Your task to perform on an android device: Show me recent news Image 0: 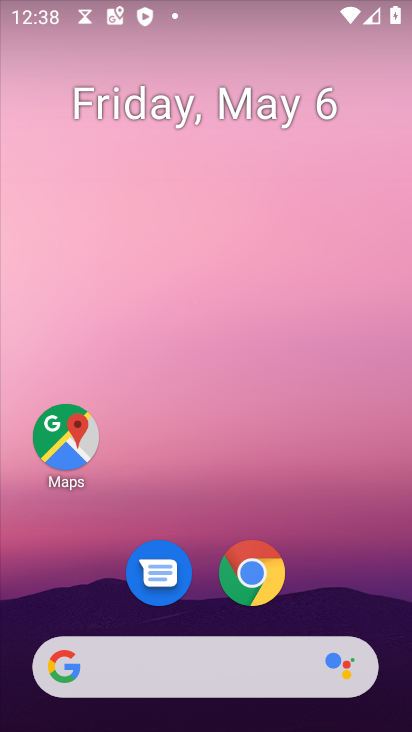
Step 0: drag from (329, 578) to (337, 100)
Your task to perform on an android device: Show me recent news Image 1: 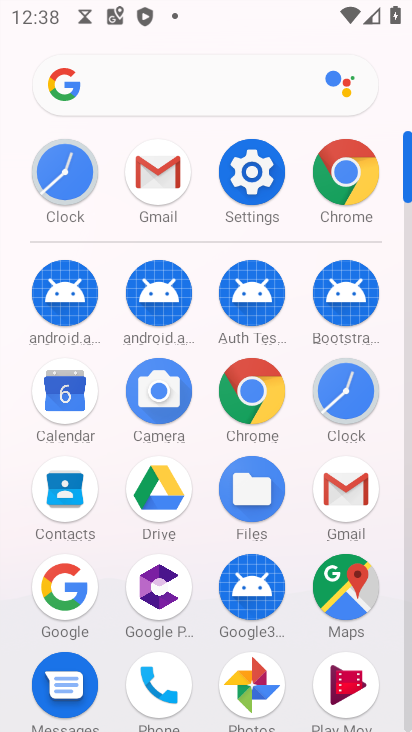
Step 1: click (262, 392)
Your task to perform on an android device: Show me recent news Image 2: 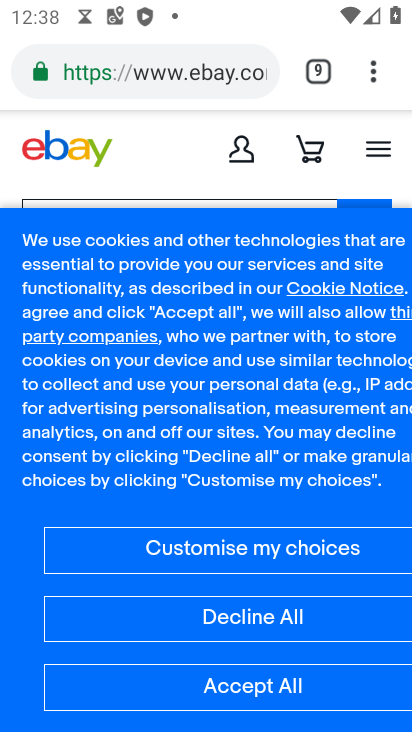
Step 2: click (359, 68)
Your task to perform on an android device: Show me recent news Image 3: 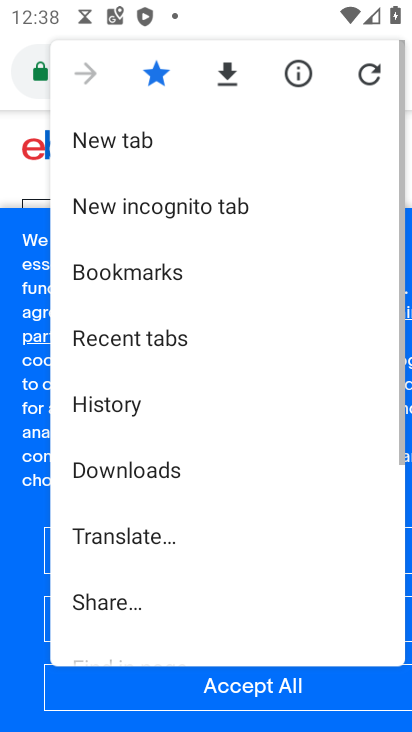
Step 3: click (120, 143)
Your task to perform on an android device: Show me recent news Image 4: 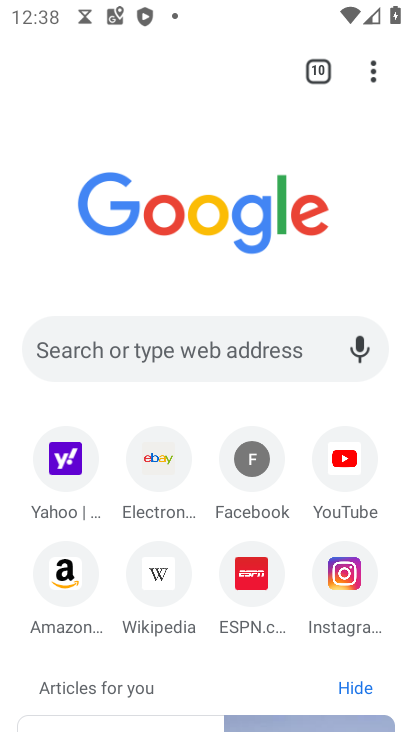
Step 4: click (264, 342)
Your task to perform on an android device: Show me recent news Image 5: 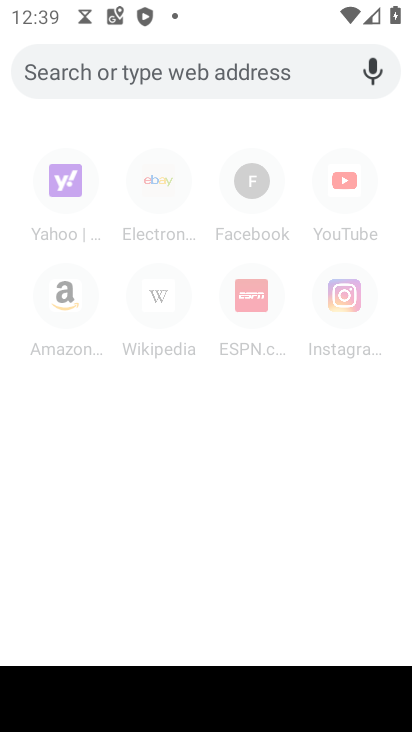
Step 5: type "recent news"
Your task to perform on an android device: Show me recent news Image 6: 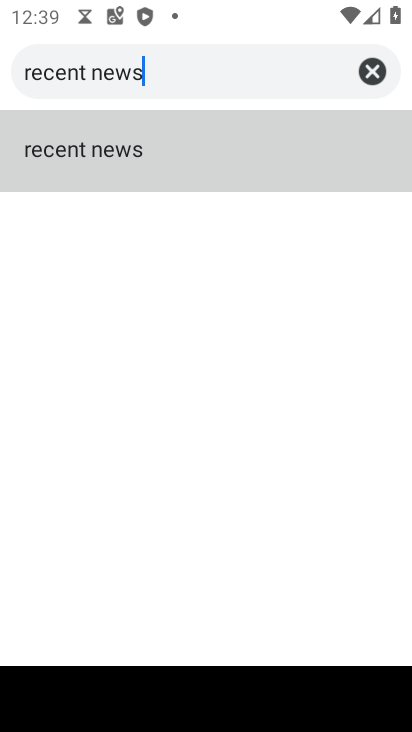
Step 6: click (268, 158)
Your task to perform on an android device: Show me recent news Image 7: 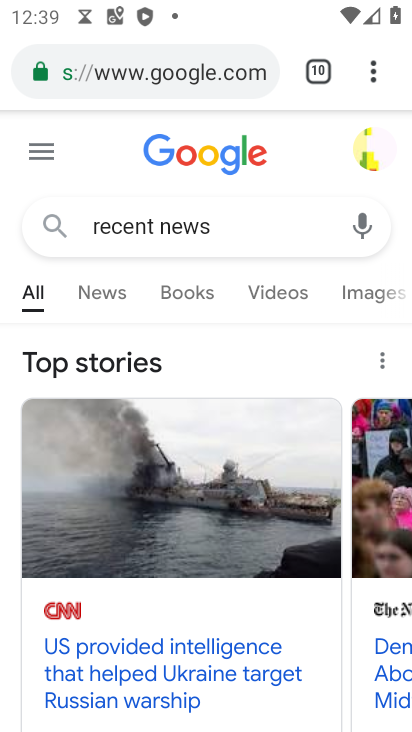
Step 7: task complete